Your task to perform on an android device: Open Google Chrome Image 0: 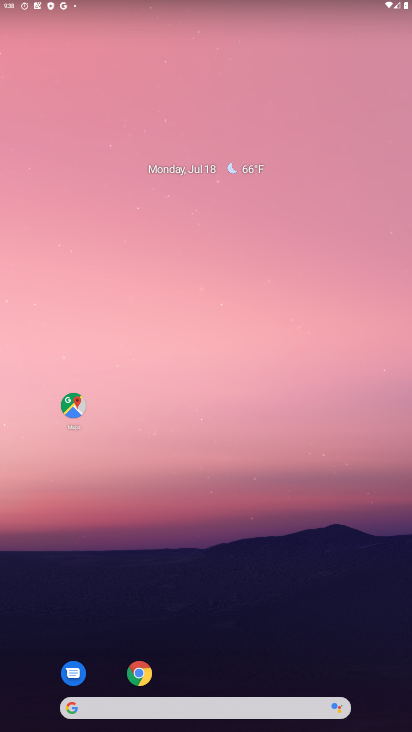
Step 0: click (139, 674)
Your task to perform on an android device: Open Google Chrome Image 1: 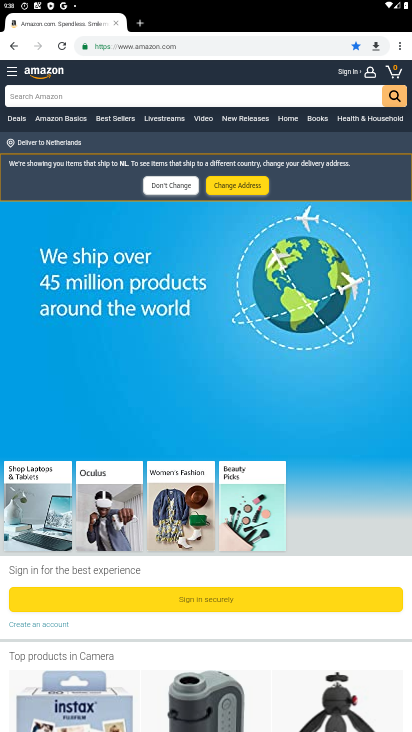
Step 1: task complete